Your task to perform on an android device: change timer sound Image 0: 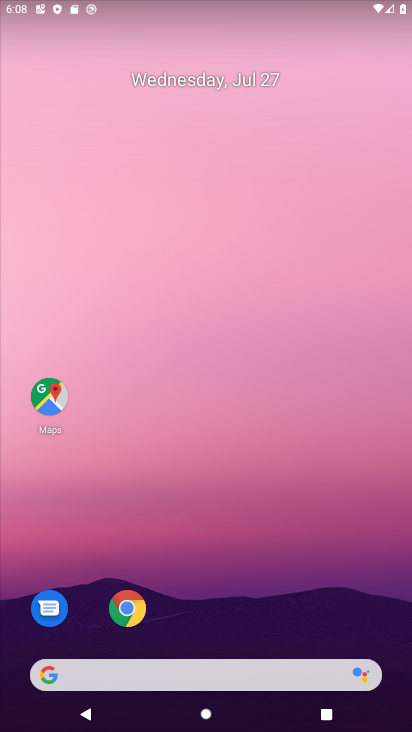
Step 0: press home button
Your task to perform on an android device: change timer sound Image 1: 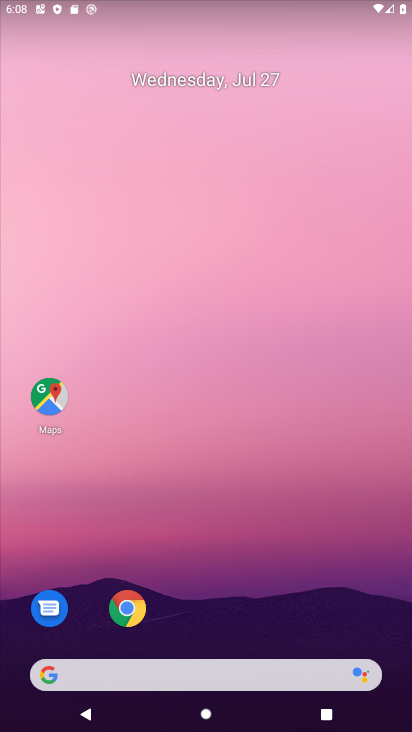
Step 1: press home button
Your task to perform on an android device: change timer sound Image 2: 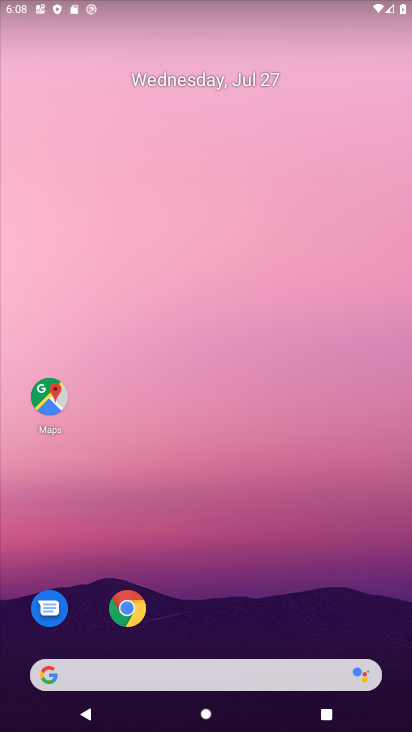
Step 2: drag from (245, 626) to (252, 87)
Your task to perform on an android device: change timer sound Image 3: 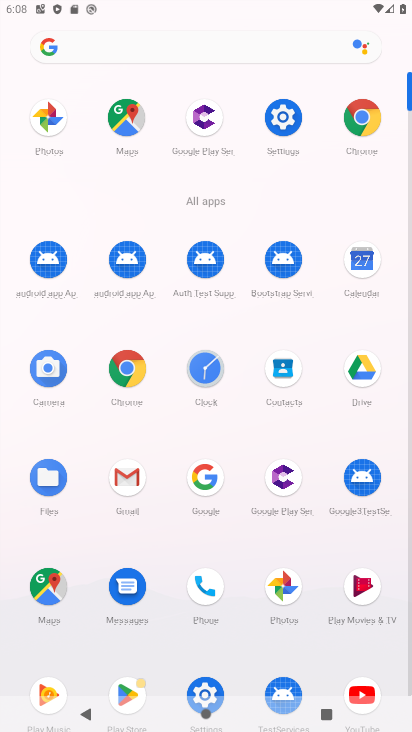
Step 3: click (194, 365)
Your task to perform on an android device: change timer sound Image 4: 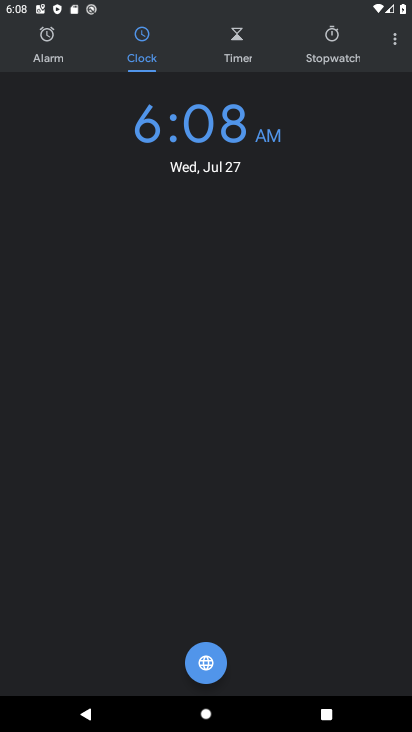
Step 4: click (387, 33)
Your task to perform on an android device: change timer sound Image 5: 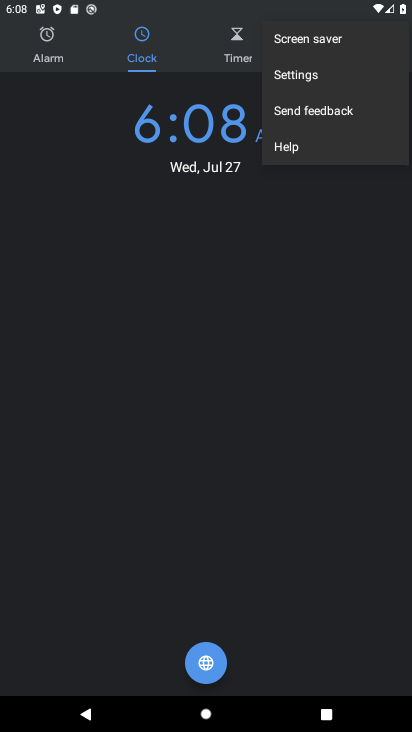
Step 5: click (302, 76)
Your task to perform on an android device: change timer sound Image 6: 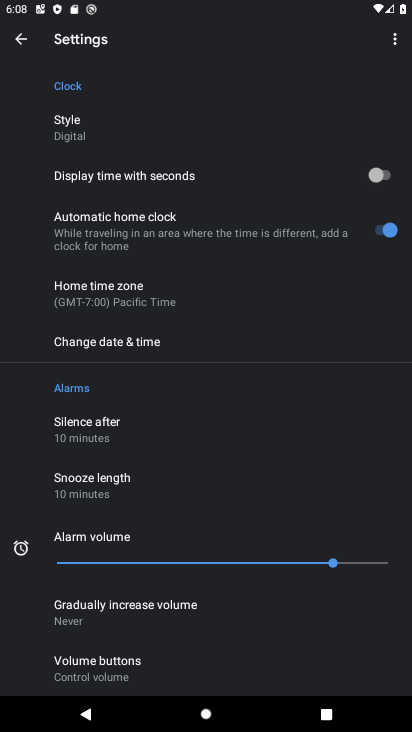
Step 6: drag from (286, 626) to (288, 161)
Your task to perform on an android device: change timer sound Image 7: 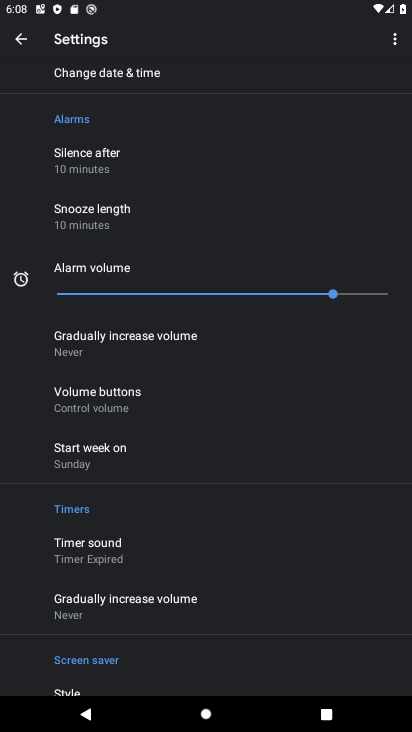
Step 7: click (97, 546)
Your task to perform on an android device: change timer sound Image 8: 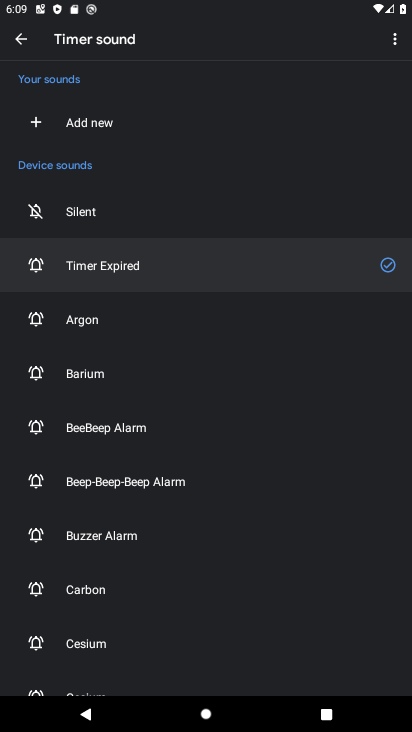
Step 8: click (77, 327)
Your task to perform on an android device: change timer sound Image 9: 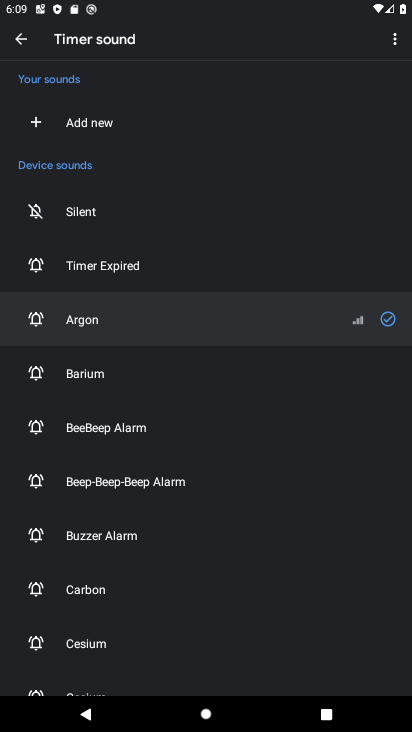
Step 9: task complete